Your task to perform on an android device: Go to battery settings Image 0: 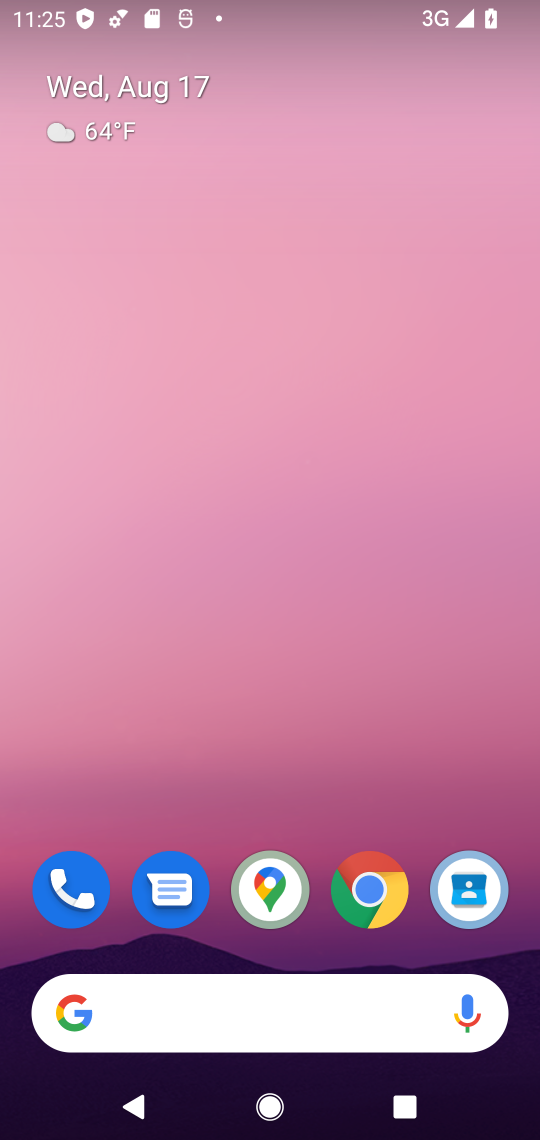
Step 0: drag from (330, 776) to (363, 13)
Your task to perform on an android device: Go to battery settings Image 1: 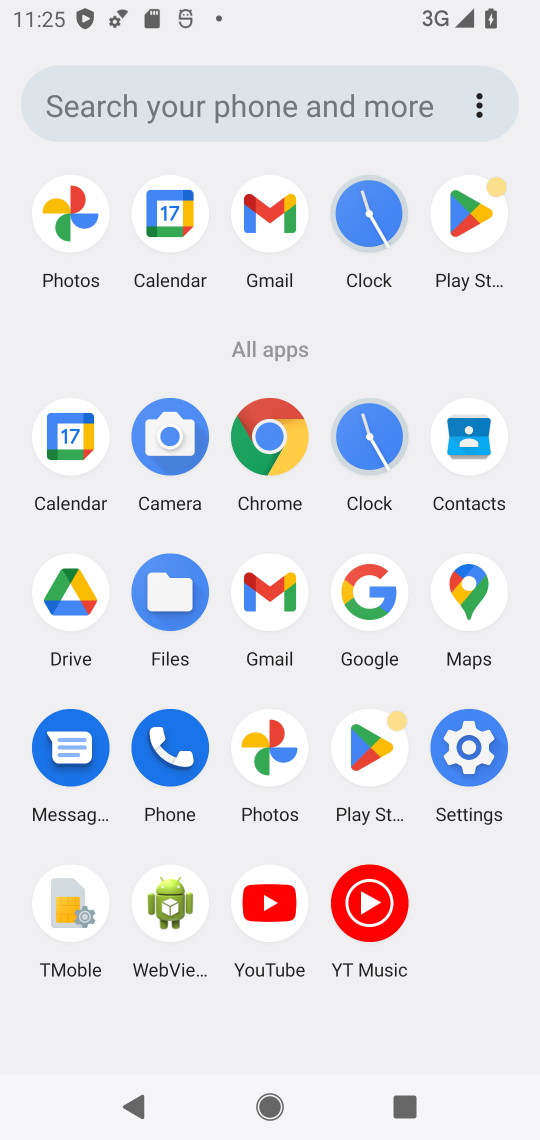
Step 1: click (470, 749)
Your task to perform on an android device: Go to battery settings Image 2: 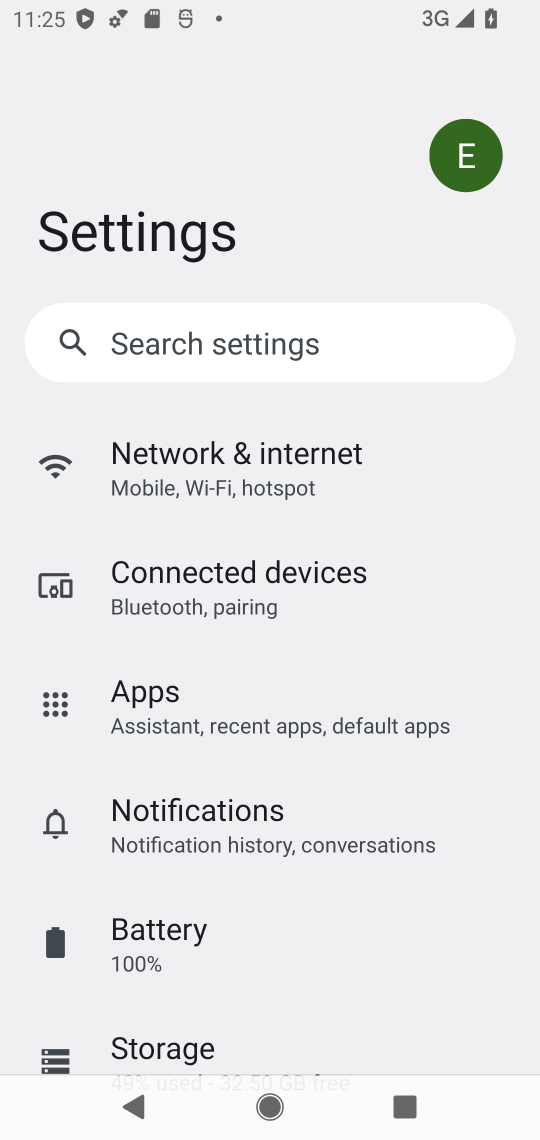
Step 2: click (195, 939)
Your task to perform on an android device: Go to battery settings Image 3: 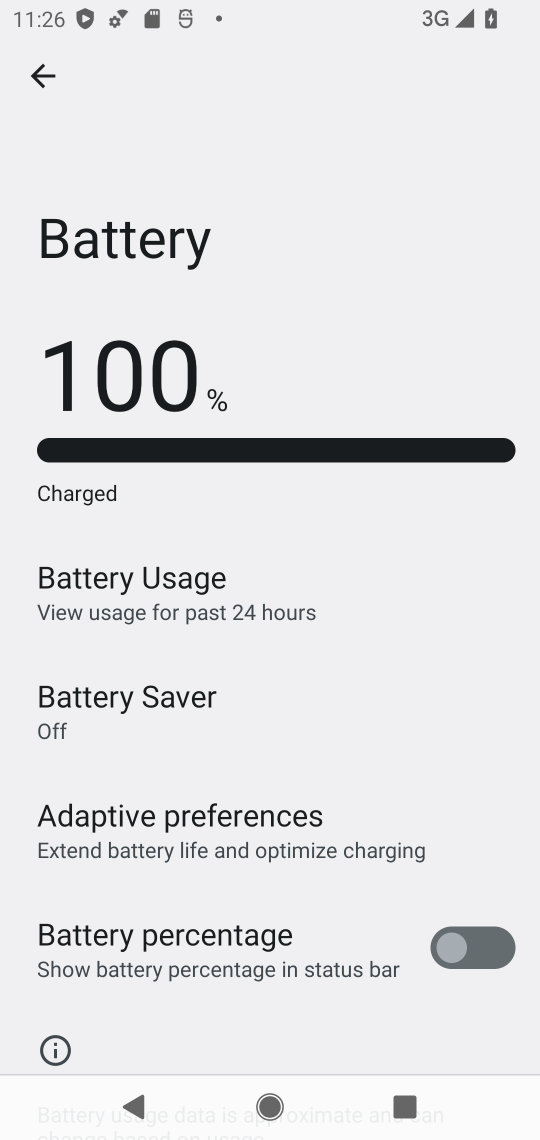
Step 3: task complete